Your task to perform on an android device: search for starred emails in the gmail app Image 0: 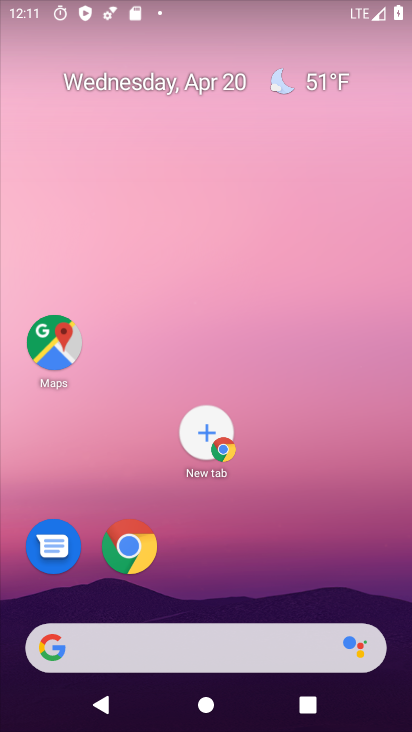
Step 0: drag from (201, 587) to (162, 82)
Your task to perform on an android device: search for starred emails in the gmail app Image 1: 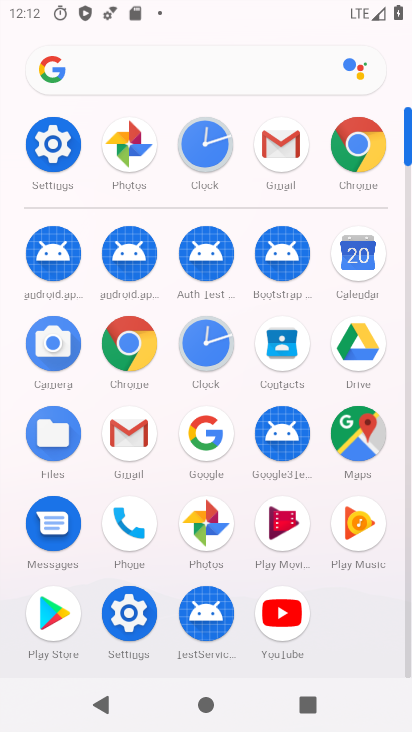
Step 1: click (109, 435)
Your task to perform on an android device: search for starred emails in the gmail app Image 2: 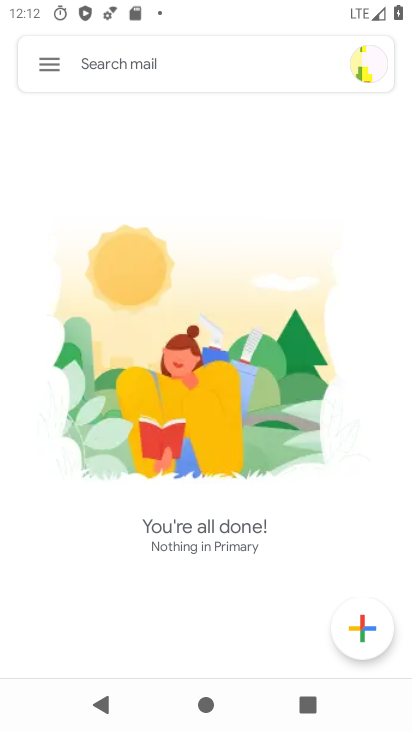
Step 2: click (40, 73)
Your task to perform on an android device: search for starred emails in the gmail app Image 3: 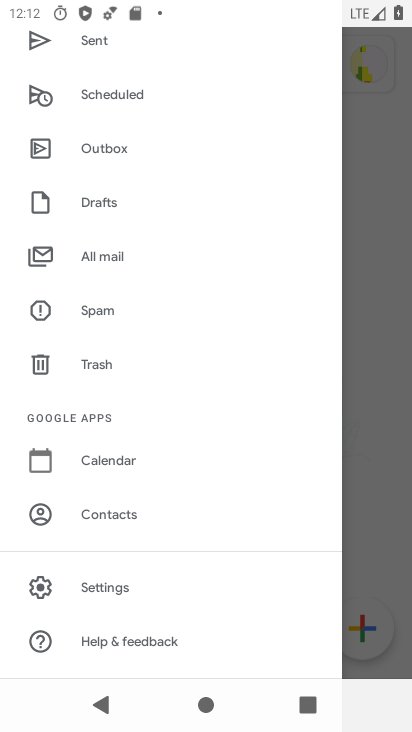
Step 3: drag from (183, 198) to (258, 591)
Your task to perform on an android device: search for starred emails in the gmail app Image 4: 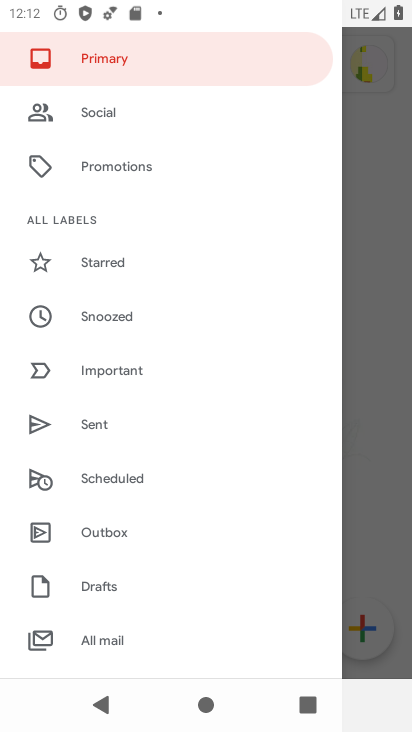
Step 4: click (133, 270)
Your task to perform on an android device: search for starred emails in the gmail app Image 5: 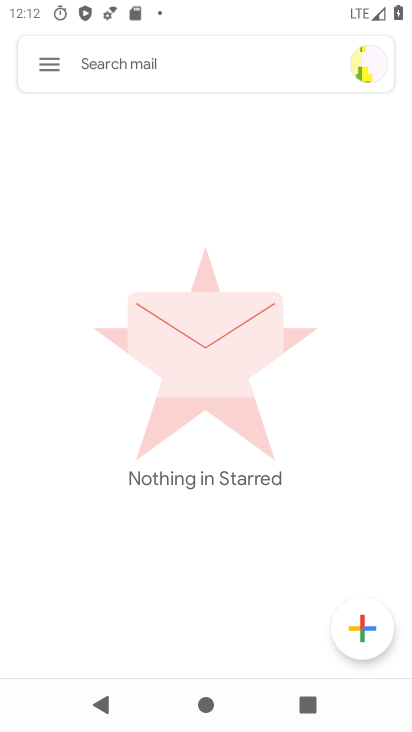
Step 5: click (133, 270)
Your task to perform on an android device: search for starred emails in the gmail app Image 6: 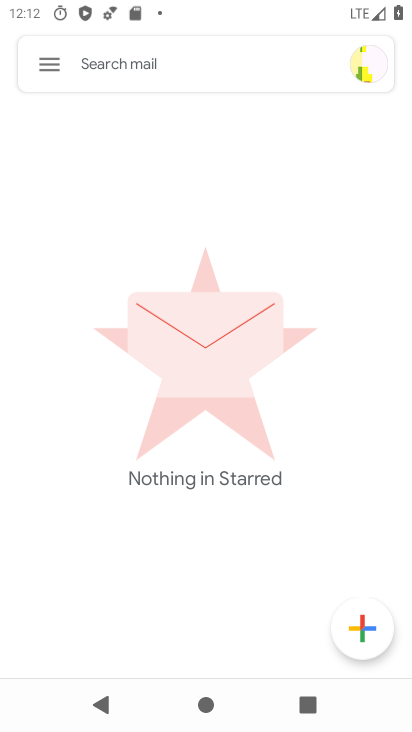
Step 6: click (133, 270)
Your task to perform on an android device: search for starred emails in the gmail app Image 7: 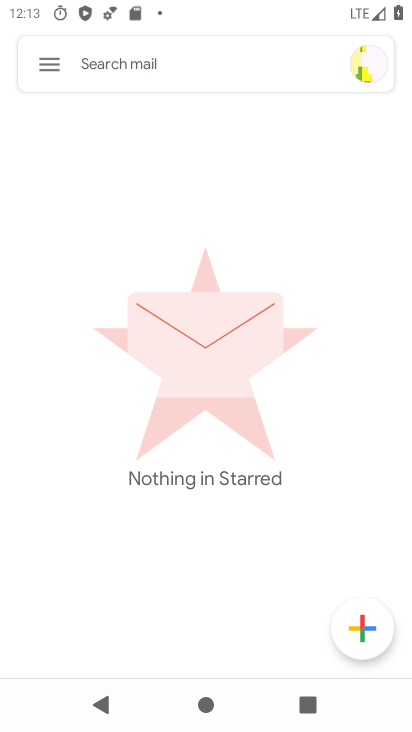
Step 7: click (133, 270)
Your task to perform on an android device: search for starred emails in the gmail app Image 8: 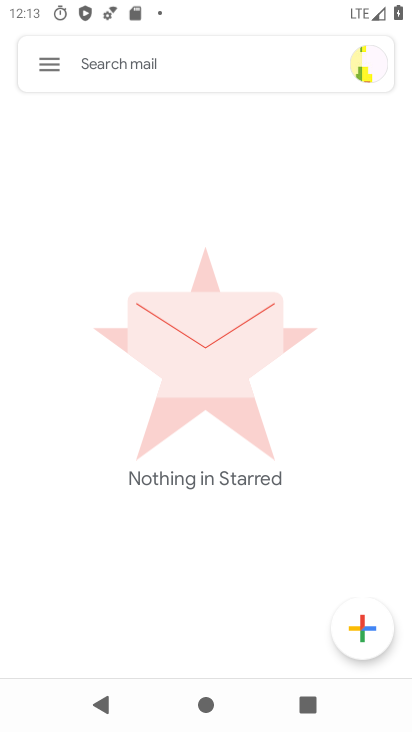
Step 8: click (133, 270)
Your task to perform on an android device: search for starred emails in the gmail app Image 9: 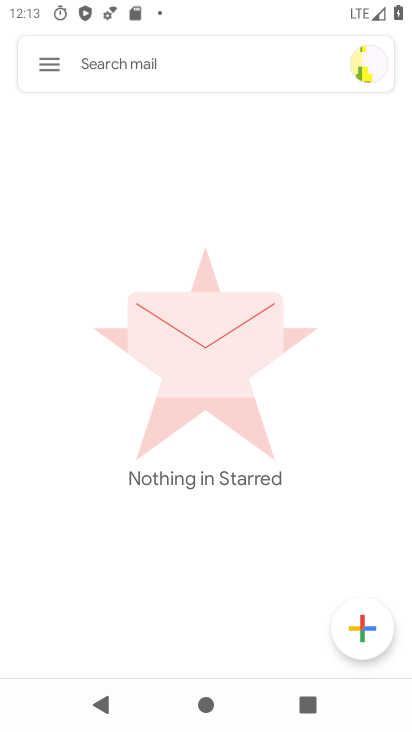
Step 9: click (133, 270)
Your task to perform on an android device: search for starred emails in the gmail app Image 10: 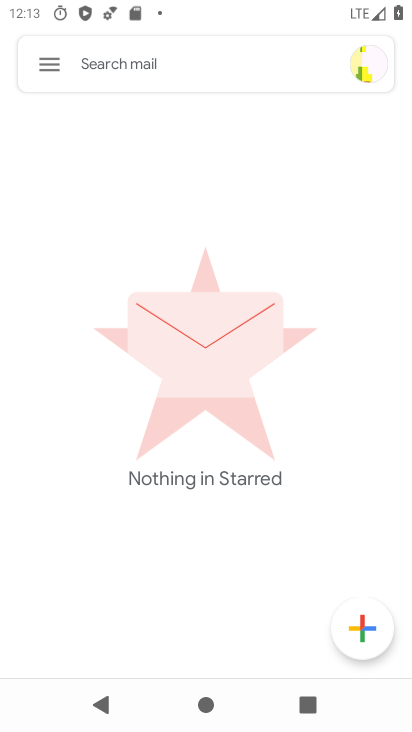
Step 10: click (133, 270)
Your task to perform on an android device: search for starred emails in the gmail app Image 11: 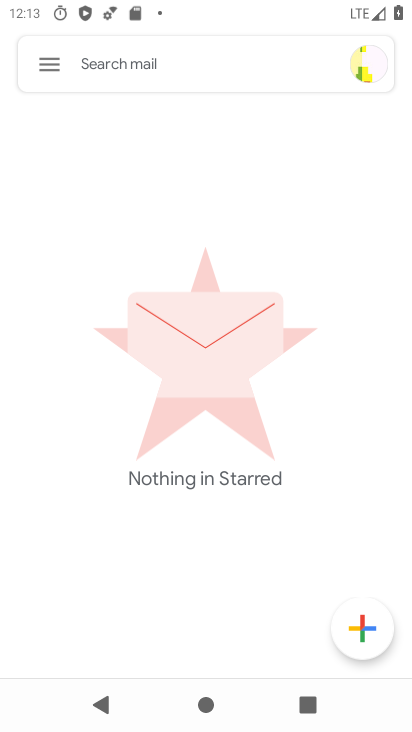
Step 11: click (133, 270)
Your task to perform on an android device: search for starred emails in the gmail app Image 12: 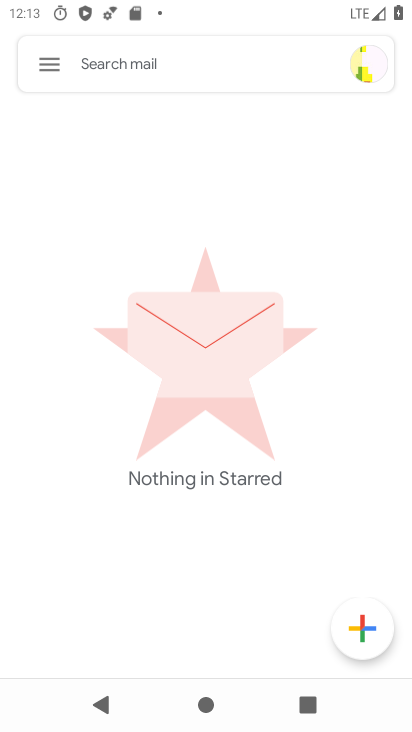
Step 12: click (133, 270)
Your task to perform on an android device: search for starred emails in the gmail app Image 13: 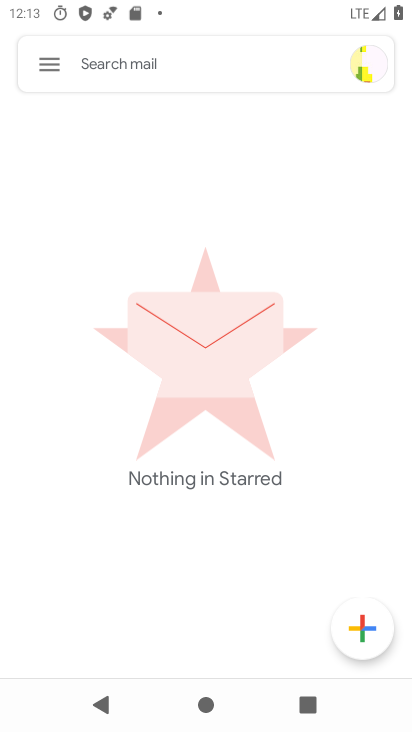
Step 13: click (133, 270)
Your task to perform on an android device: search for starred emails in the gmail app Image 14: 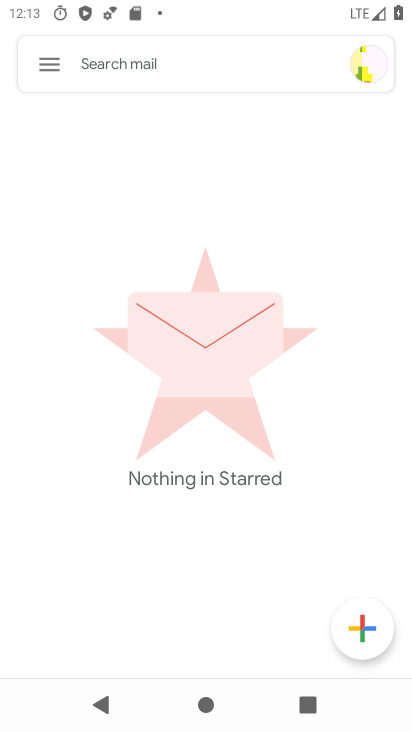
Step 14: click (133, 270)
Your task to perform on an android device: search for starred emails in the gmail app Image 15: 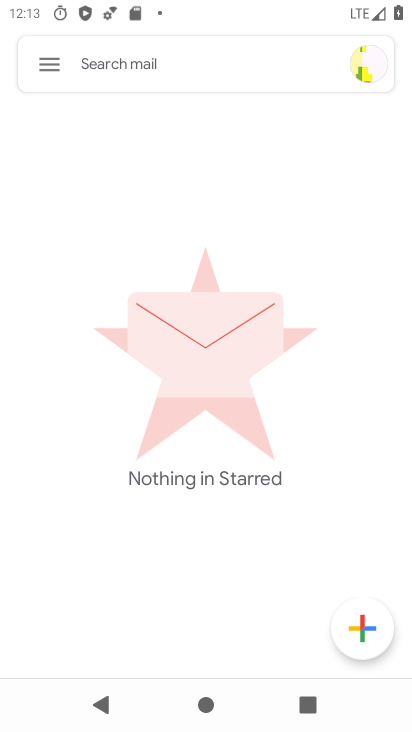
Step 15: task complete